Your task to perform on an android device: Is it going to rain tomorrow? Image 0: 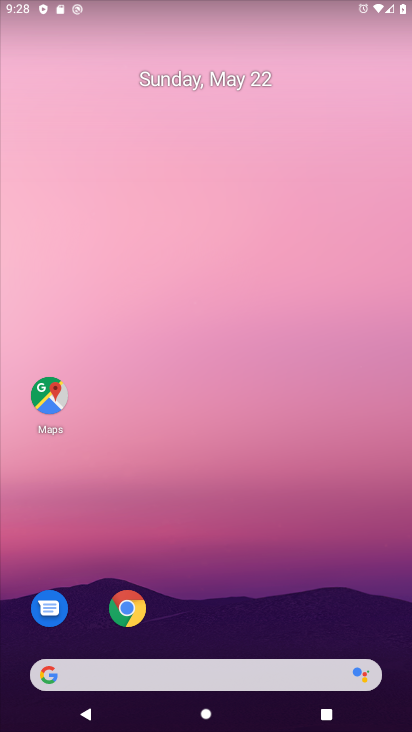
Step 0: drag from (219, 546) to (226, 28)
Your task to perform on an android device: Is it going to rain tomorrow? Image 1: 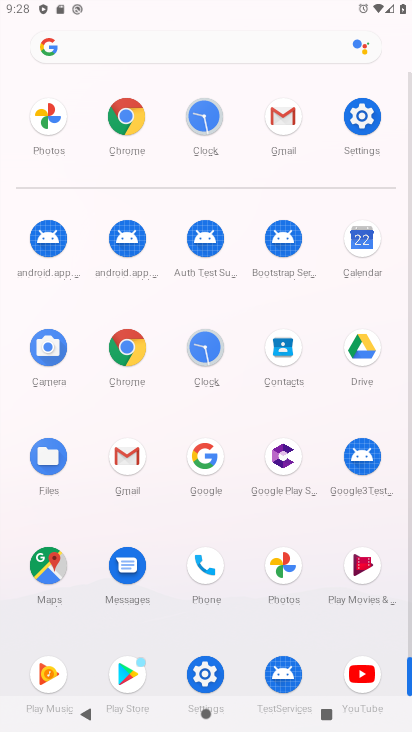
Step 1: click (132, 336)
Your task to perform on an android device: Is it going to rain tomorrow? Image 2: 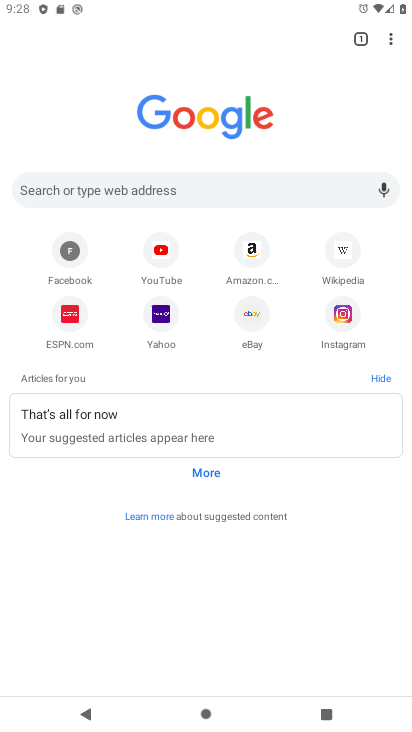
Step 2: click (209, 174)
Your task to perform on an android device: Is it going to rain tomorrow? Image 3: 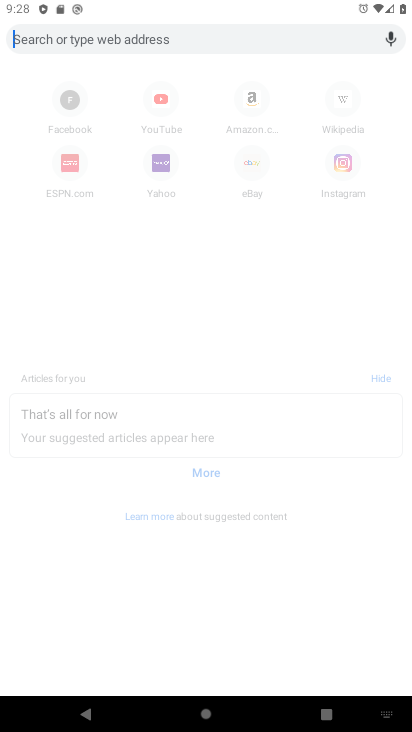
Step 3: type "Is it going to rain tomorrow?"
Your task to perform on an android device: Is it going to rain tomorrow? Image 4: 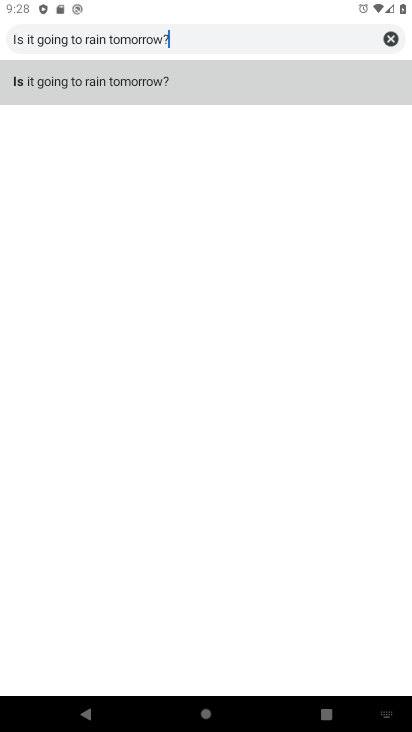
Step 4: click (135, 86)
Your task to perform on an android device: Is it going to rain tomorrow? Image 5: 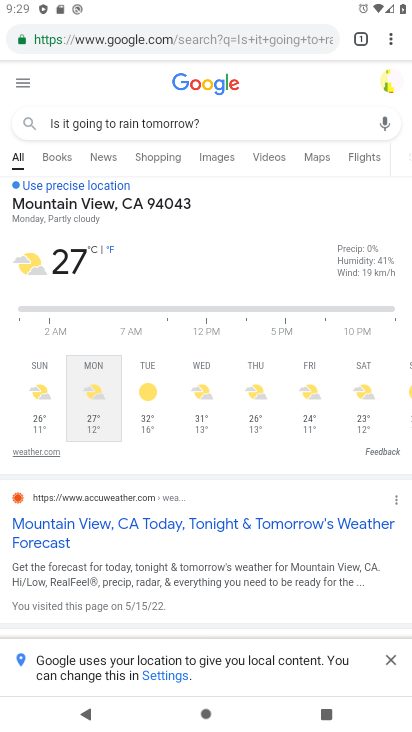
Step 5: task complete